Your task to perform on an android device: change the clock display to digital Image 0: 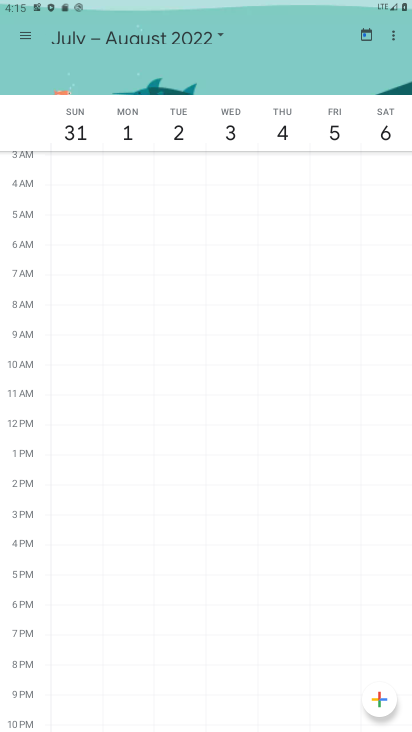
Step 0: press home button
Your task to perform on an android device: change the clock display to digital Image 1: 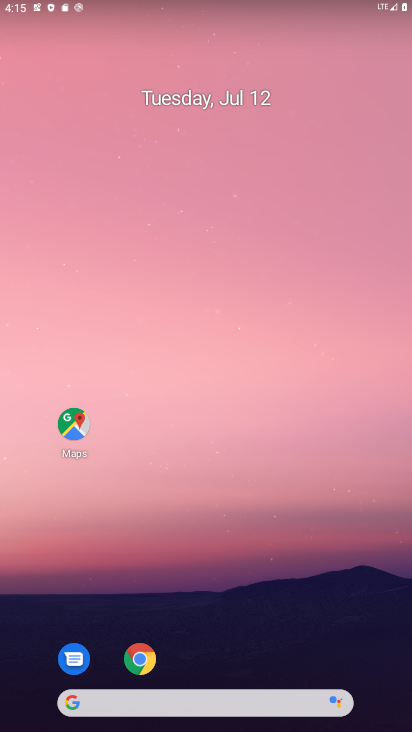
Step 1: drag from (211, 716) to (207, 118)
Your task to perform on an android device: change the clock display to digital Image 2: 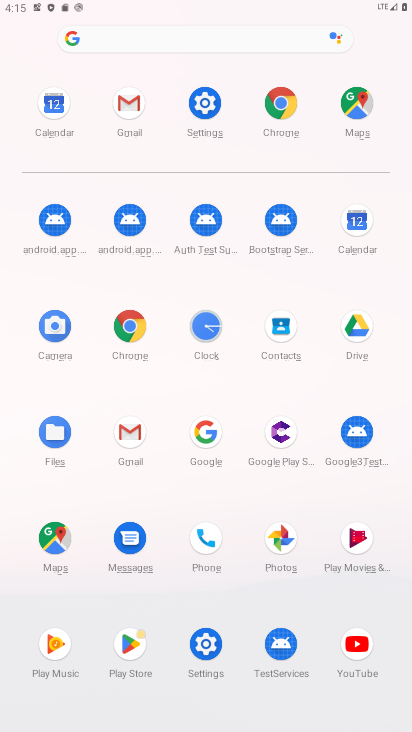
Step 2: click (206, 323)
Your task to perform on an android device: change the clock display to digital Image 3: 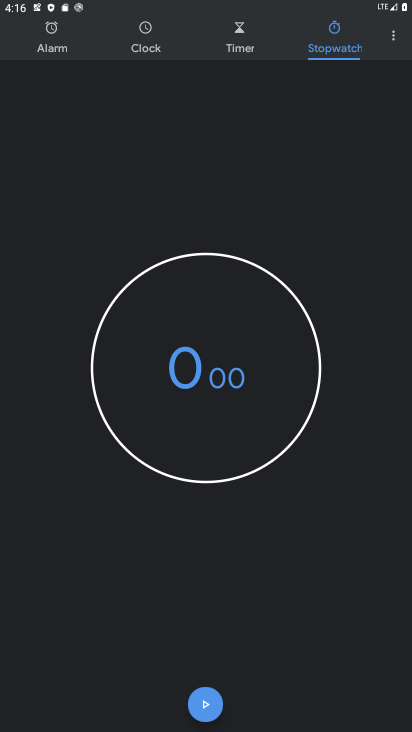
Step 3: click (395, 33)
Your task to perform on an android device: change the clock display to digital Image 4: 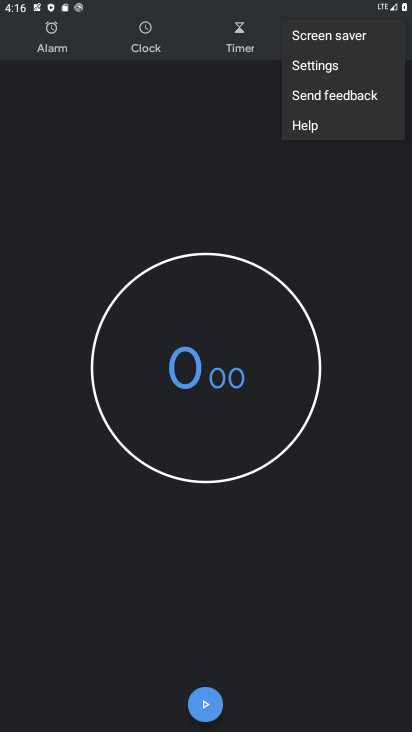
Step 4: click (321, 65)
Your task to perform on an android device: change the clock display to digital Image 5: 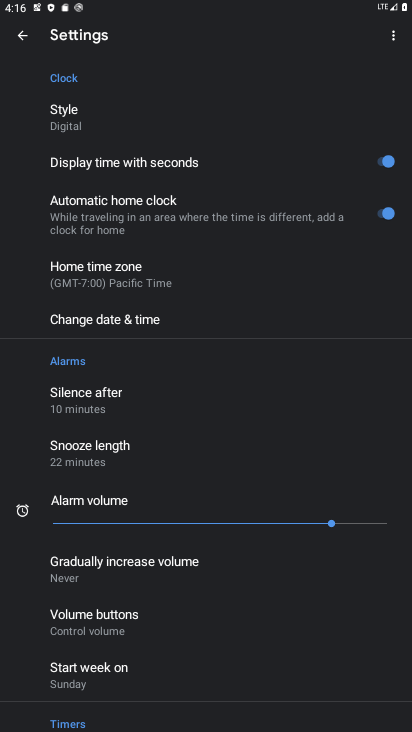
Step 5: task complete